Your task to perform on an android device: Open the web browser Image 0: 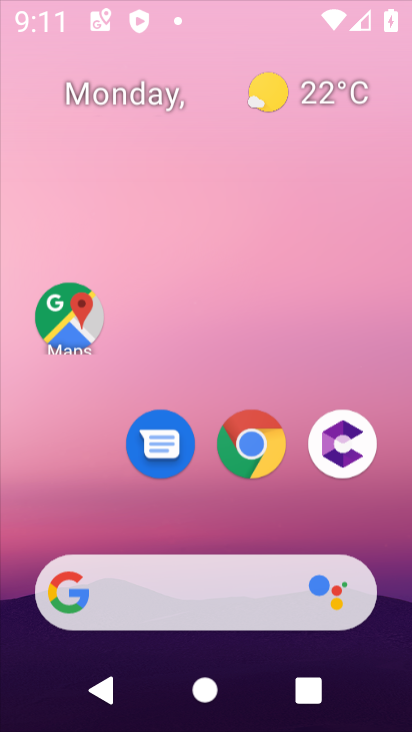
Step 0: press home button
Your task to perform on an android device: Open the web browser Image 1: 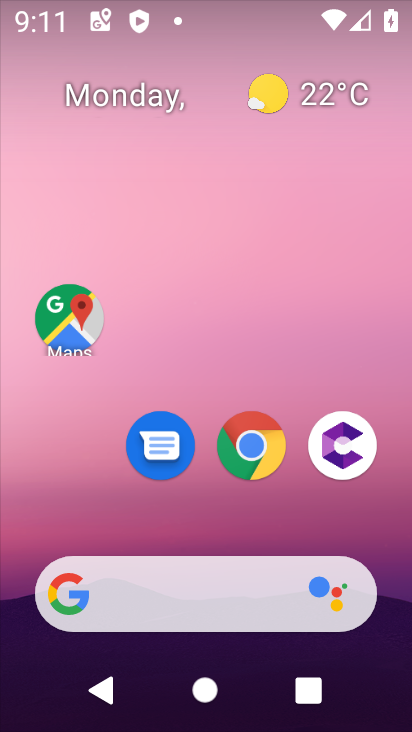
Step 1: click (53, 602)
Your task to perform on an android device: Open the web browser Image 2: 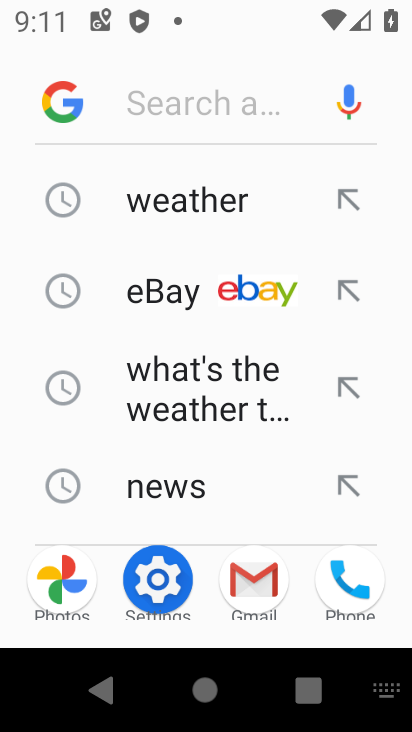
Step 2: task complete